Your task to perform on an android device: What is the recent news? Image 0: 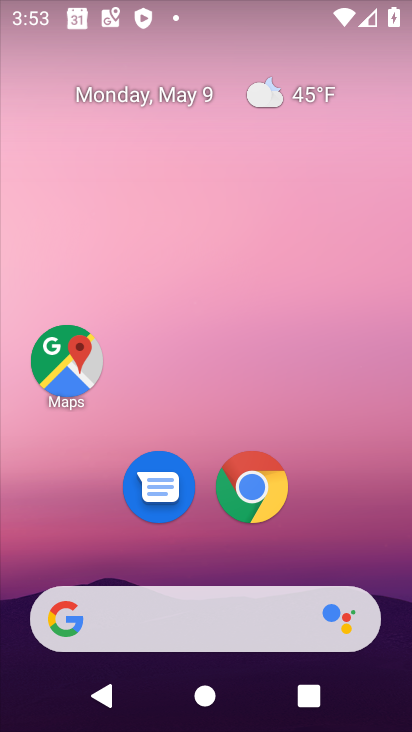
Step 0: drag from (166, 538) to (163, 243)
Your task to perform on an android device: What is the recent news? Image 1: 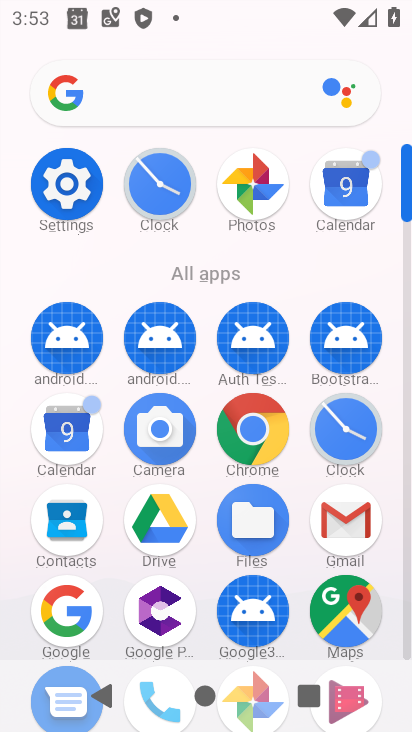
Step 1: click (83, 603)
Your task to perform on an android device: What is the recent news? Image 2: 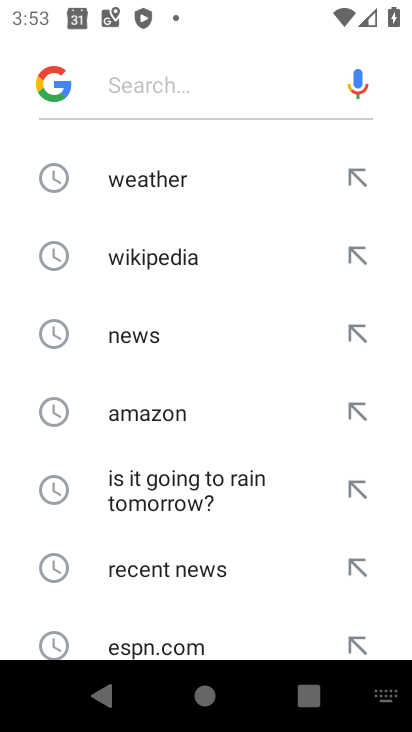
Step 2: task complete